Your task to perform on an android device: Go to display settings Image 0: 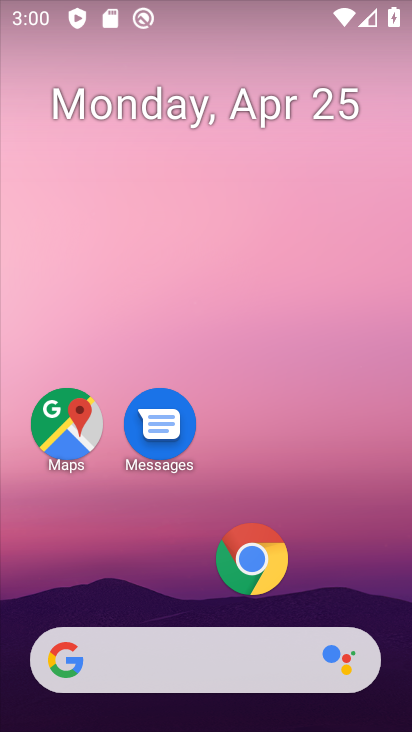
Step 0: drag from (148, 613) to (209, 93)
Your task to perform on an android device: Go to display settings Image 1: 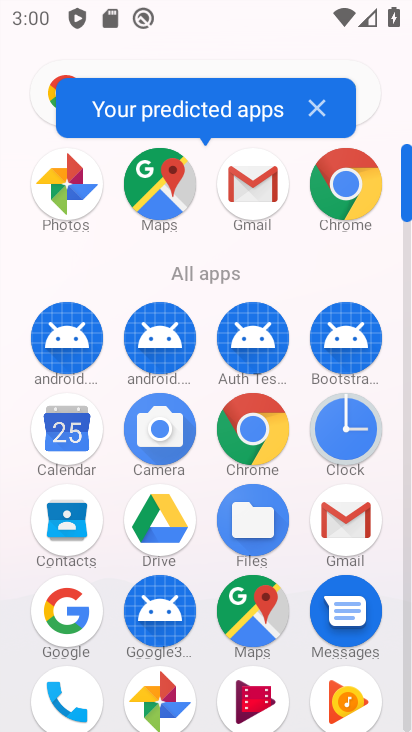
Step 1: drag from (206, 621) to (204, 250)
Your task to perform on an android device: Go to display settings Image 2: 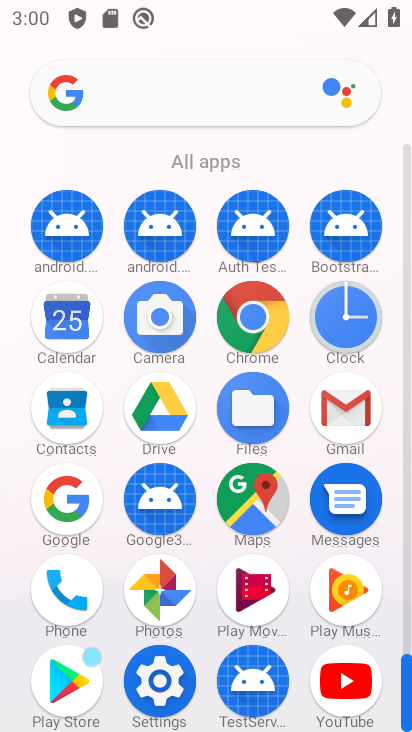
Step 2: click (157, 664)
Your task to perform on an android device: Go to display settings Image 3: 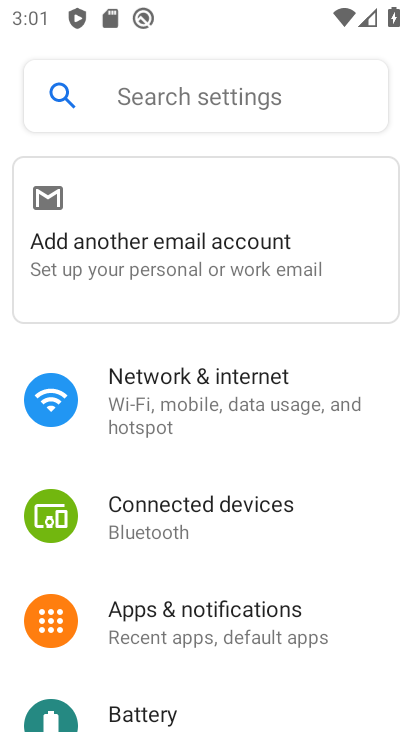
Step 3: drag from (186, 553) to (269, 128)
Your task to perform on an android device: Go to display settings Image 4: 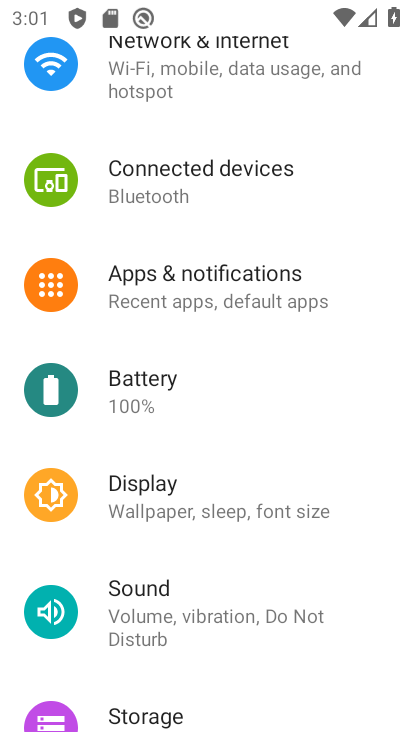
Step 4: click (205, 511)
Your task to perform on an android device: Go to display settings Image 5: 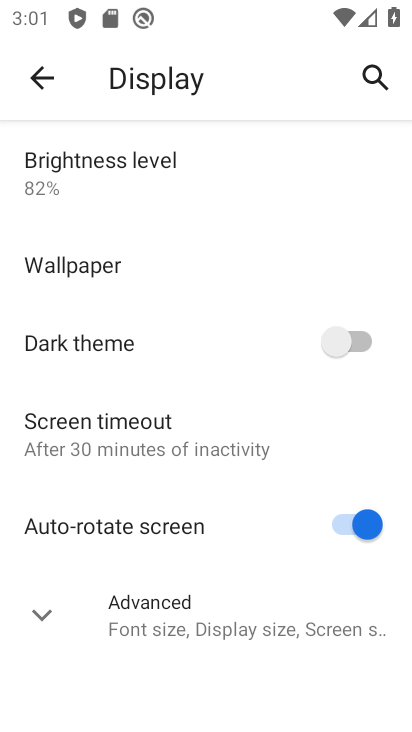
Step 5: task complete